Your task to perform on an android device: Do I have any events tomorrow? Image 0: 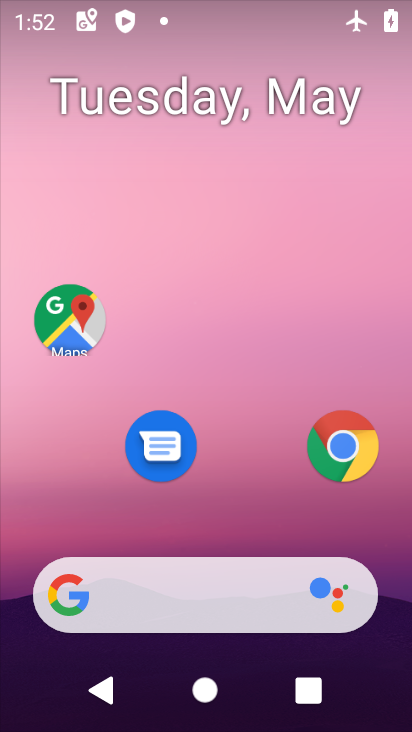
Step 0: drag from (201, 536) to (137, 44)
Your task to perform on an android device: Do I have any events tomorrow? Image 1: 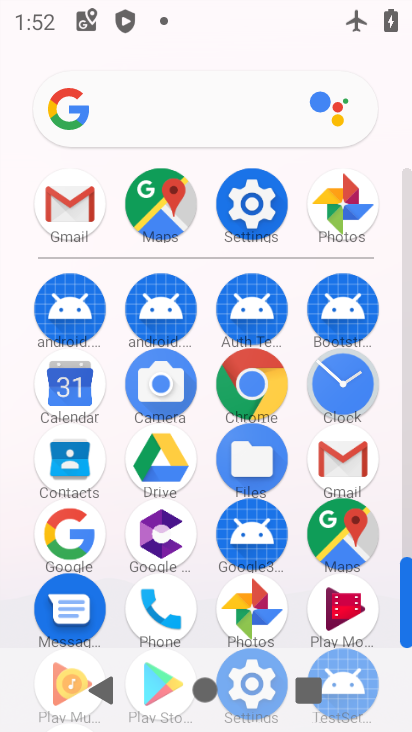
Step 1: click (74, 392)
Your task to perform on an android device: Do I have any events tomorrow? Image 2: 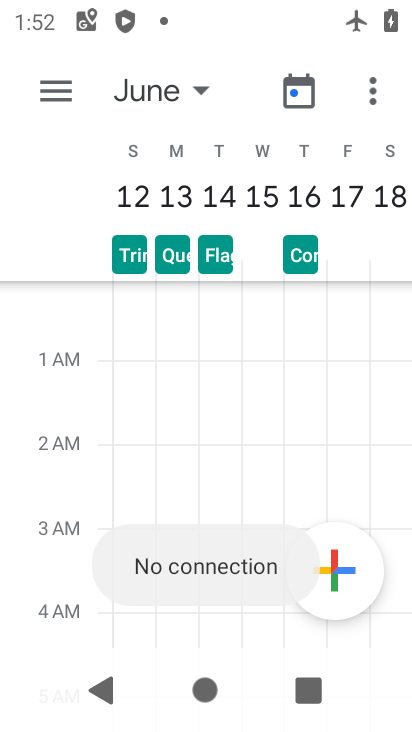
Step 2: click (303, 85)
Your task to perform on an android device: Do I have any events tomorrow? Image 3: 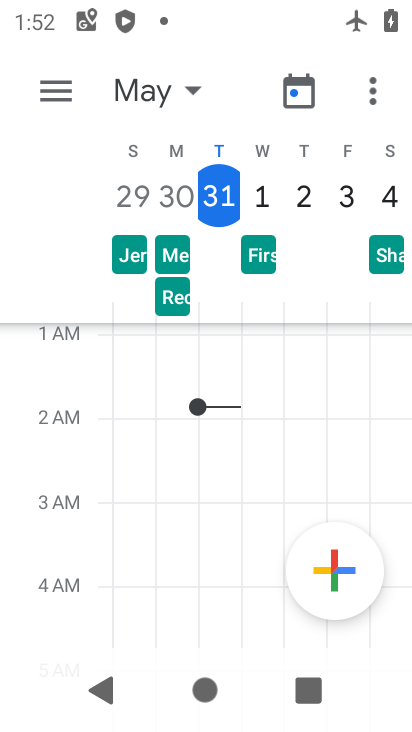
Step 3: click (261, 198)
Your task to perform on an android device: Do I have any events tomorrow? Image 4: 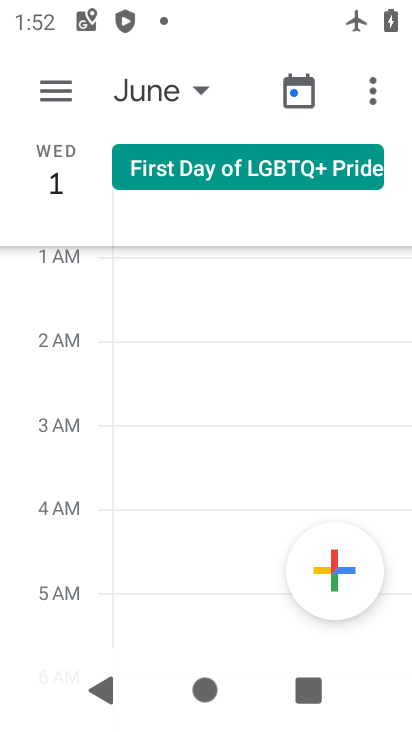
Step 4: task complete